Your task to perform on an android device: turn off picture-in-picture Image 0: 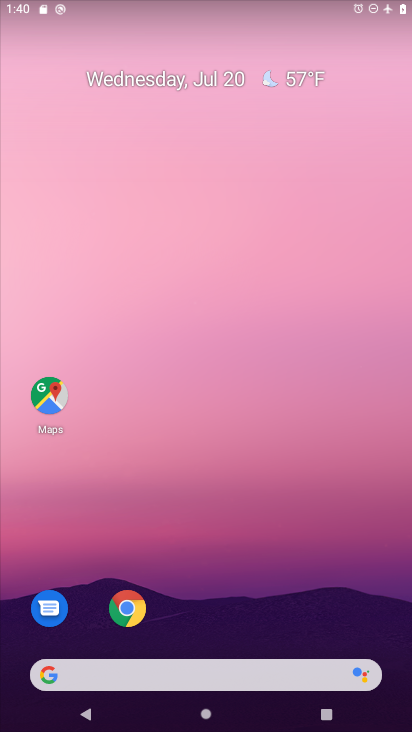
Step 0: click (118, 605)
Your task to perform on an android device: turn off picture-in-picture Image 1: 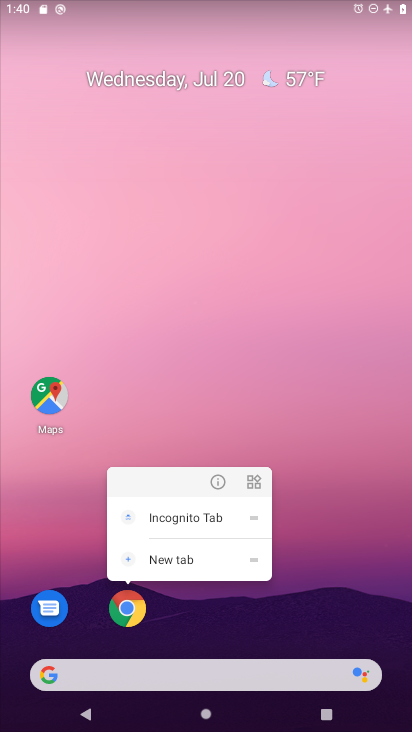
Step 1: click (219, 479)
Your task to perform on an android device: turn off picture-in-picture Image 2: 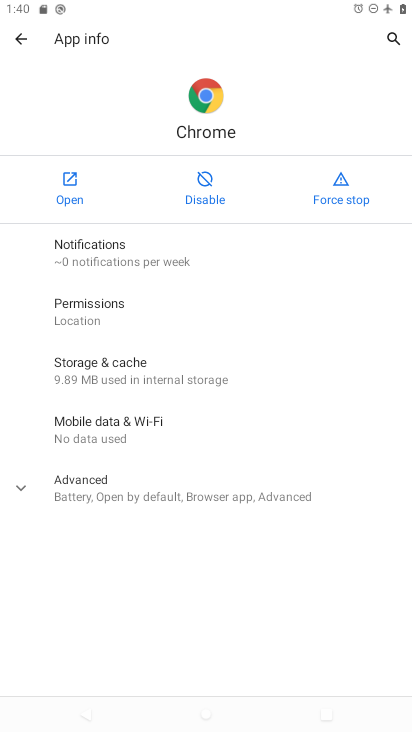
Step 2: click (153, 494)
Your task to perform on an android device: turn off picture-in-picture Image 3: 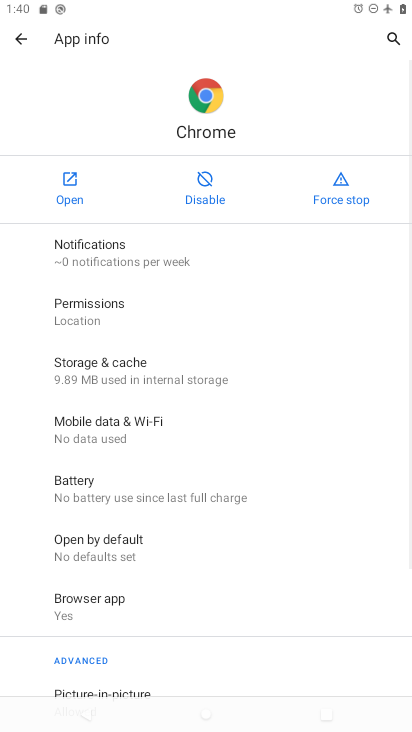
Step 3: drag from (251, 655) to (274, 120)
Your task to perform on an android device: turn off picture-in-picture Image 4: 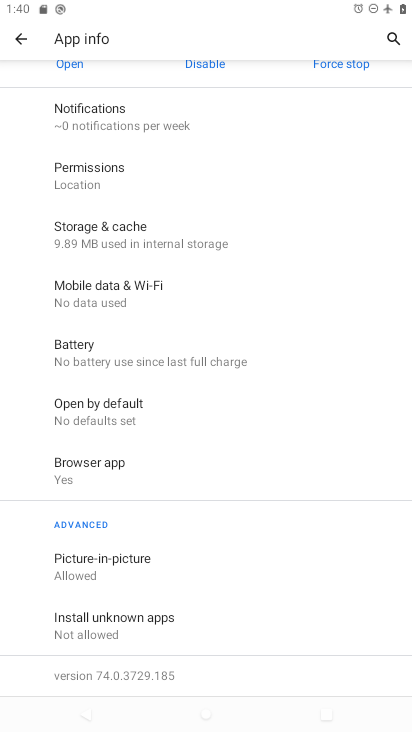
Step 4: click (121, 569)
Your task to perform on an android device: turn off picture-in-picture Image 5: 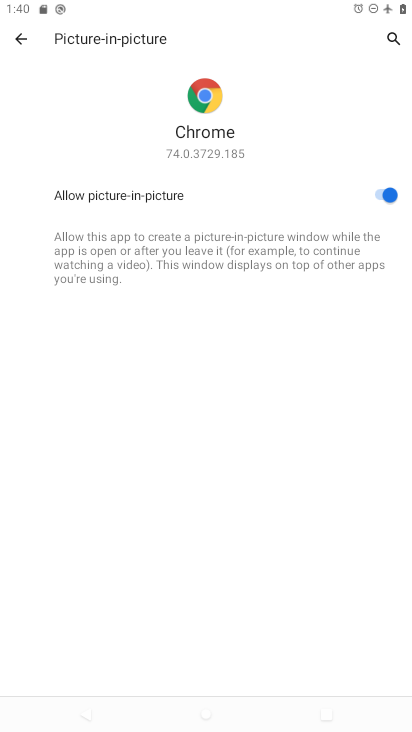
Step 5: click (388, 187)
Your task to perform on an android device: turn off picture-in-picture Image 6: 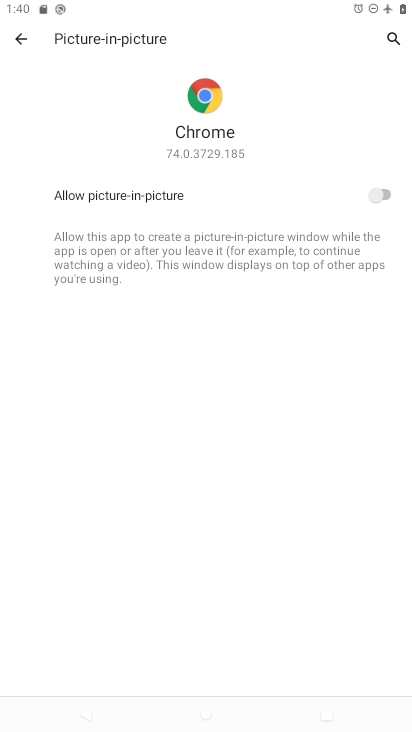
Step 6: task complete